Your task to perform on an android device: Open Youtube and go to the subscriptions tab Image 0: 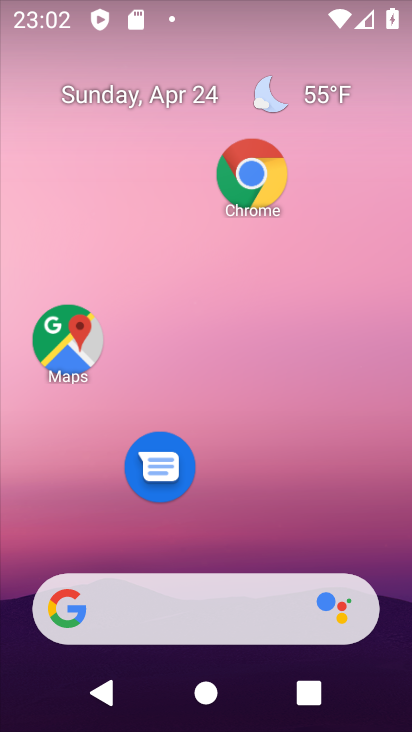
Step 0: drag from (249, 452) to (287, 25)
Your task to perform on an android device: Open Youtube and go to the subscriptions tab Image 1: 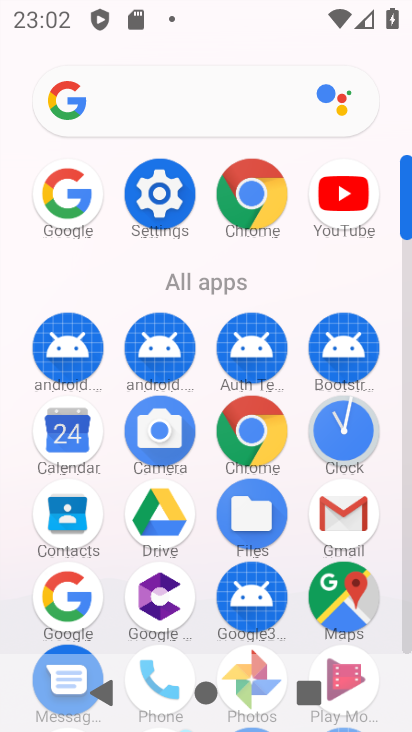
Step 1: click (341, 190)
Your task to perform on an android device: Open Youtube and go to the subscriptions tab Image 2: 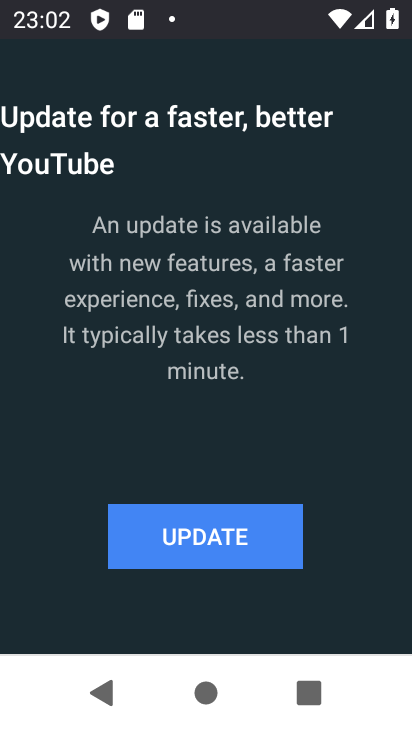
Step 2: click (210, 559)
Your task to perform on an android device: Open Youtube and go to the subscriptions tab Image 3: 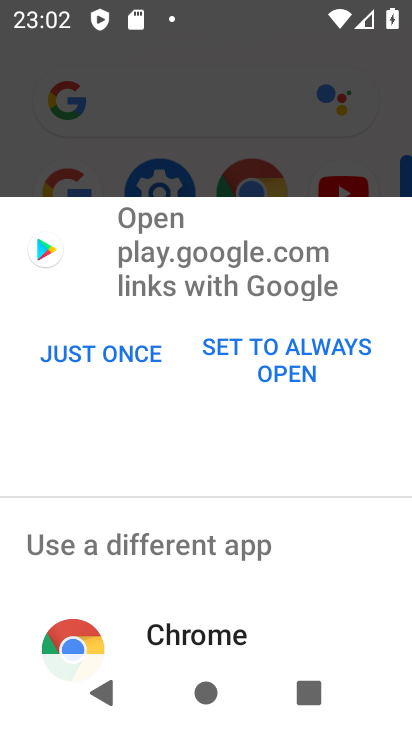
Step 3: click (91, 358)
Your task to perform on an android device: Open Youtube and go to the subscriptions tab Image 4: 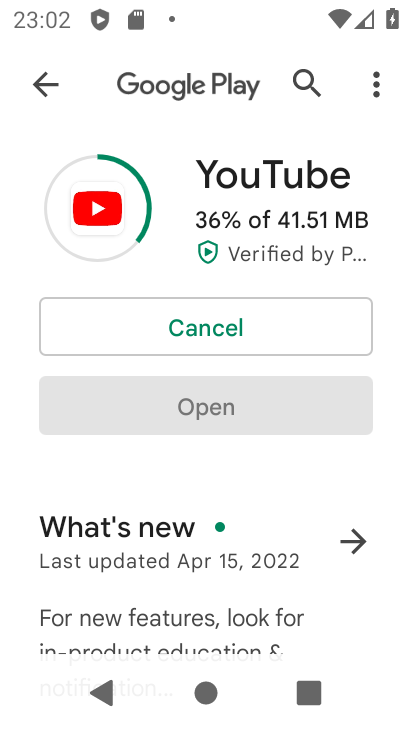
Step 4: task complete